Your task to perform on an android device: change alarm snooze length Image 0: 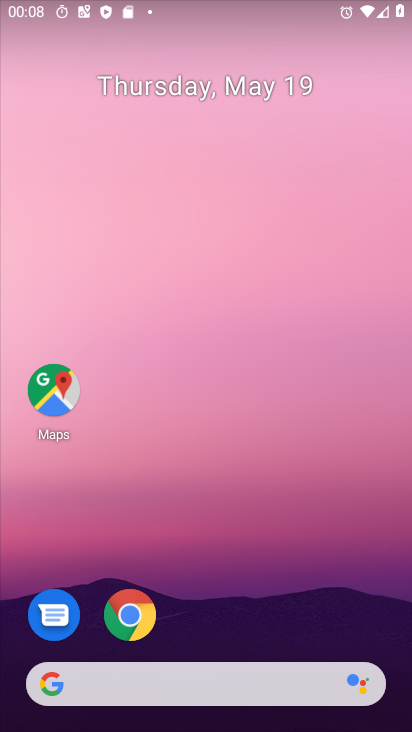
Step 0: drag from (49, 527) to (309, 144)
Your task to perform on an android device: change alarm snooze length Image 1: 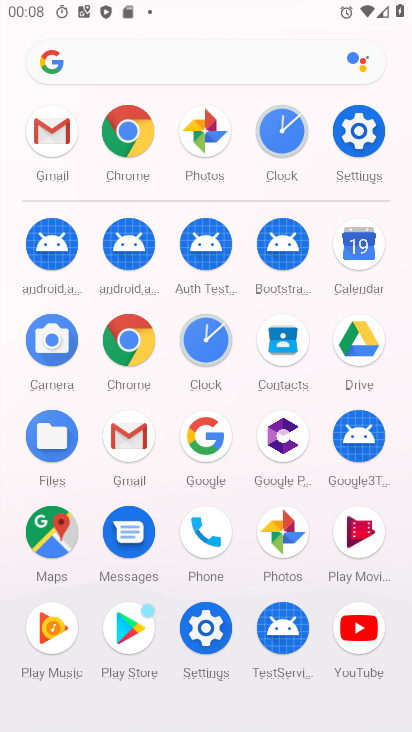
Step 1: click (279, 138)
Your task to perform on an android device: change alarm snooze length Image 2: 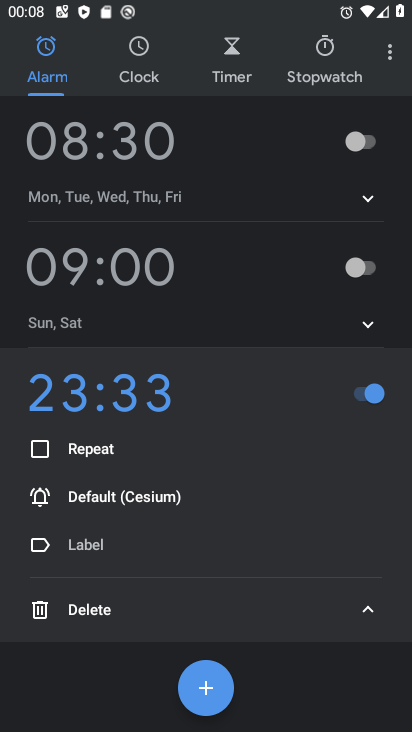
Step 2: click (384, 51)
Your task to perform on an android device: change alarm snooze length Image 3: 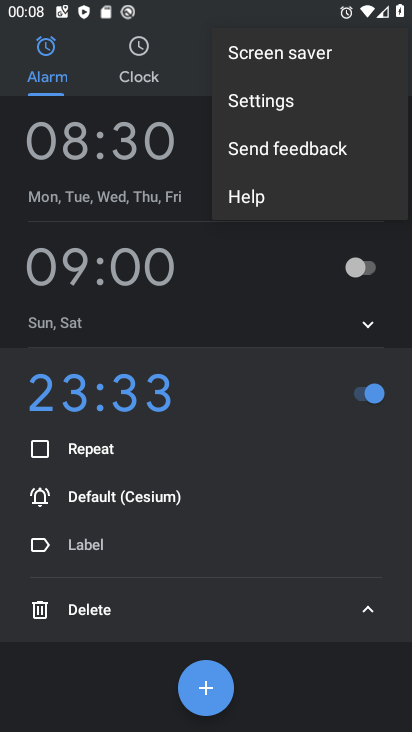
Step 3: click (336, 106)
Your task to perform on an android device: change alarm snooze length Image 4: 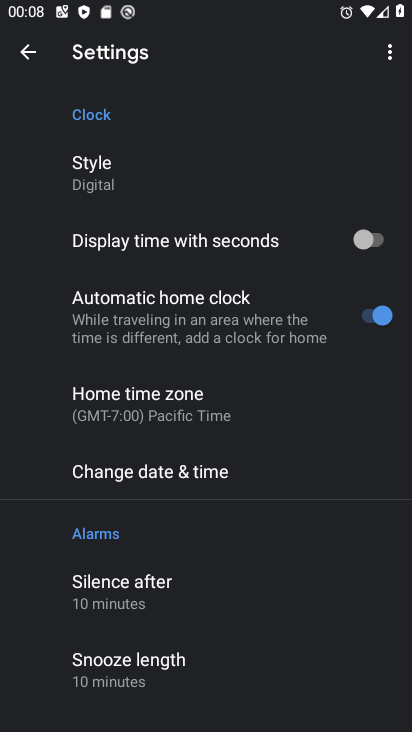
Step 4: click (185, 674)
Your task to perform on an android device: change alarm snooze length Image 5: 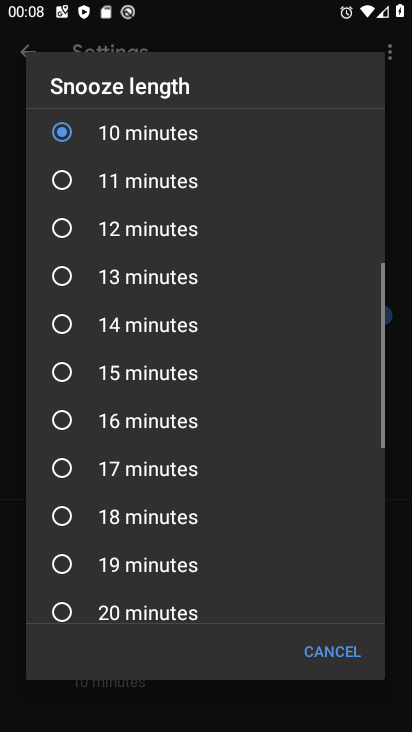
Step 5: click (156, 182)
Your task to perform on an android device: change alarm snooze length Image 6: 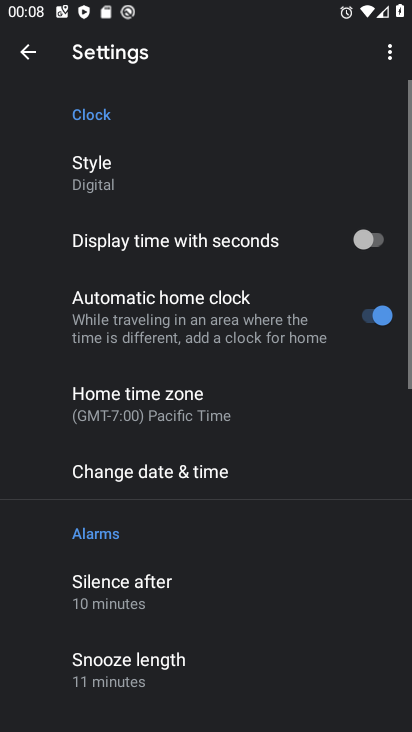
Step 6: task complete